Your task to perform on an android device: toggle notifications settings in the gmail app Image 0: 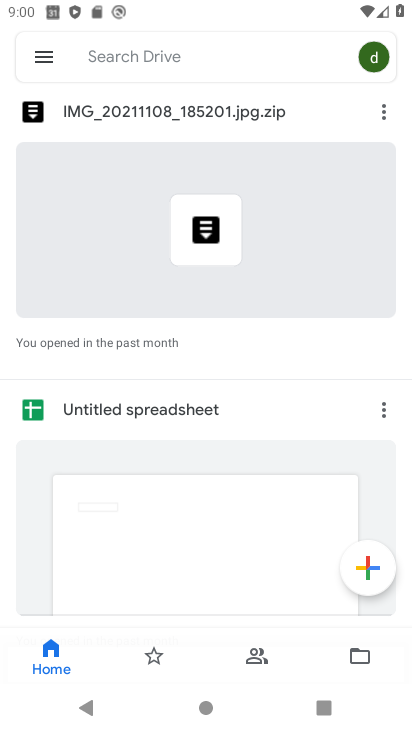
Step 0: press home button
Your task to perform on an android device: toggle notifications settings in the gmail app Image 1: 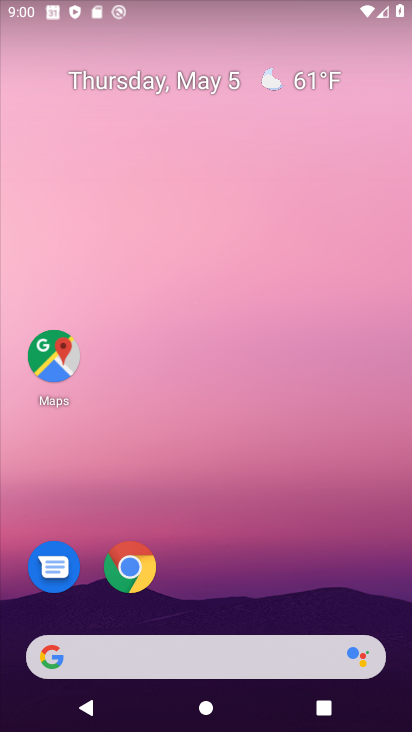
Step 1: drag from (241, 727) to (241, 237)
Your task to perform on an android device: toggle notifications settings in the gmail app Image 2: 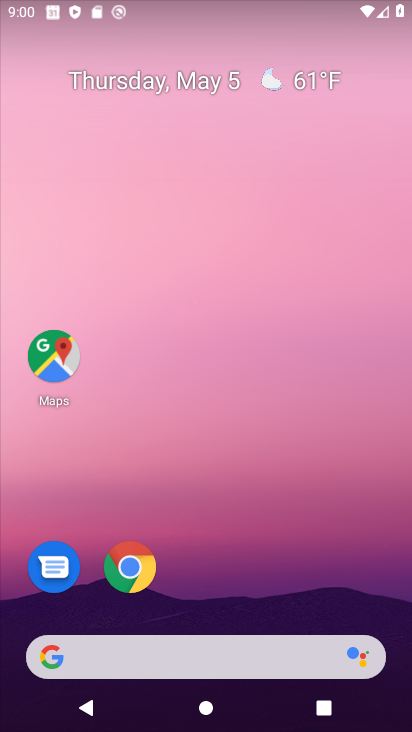
Step 2: drag from (229, 724) to (222, 173)
Your task to perform on an android device: toggle notifications settings in the gmail app Image 3: 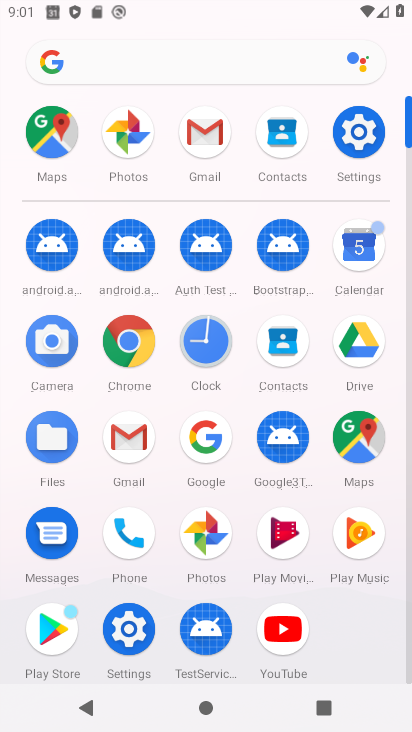
Step 3: click (204, 143)
Your task to perform on an android device: toggle notifications settings in the gmail app Image 4: 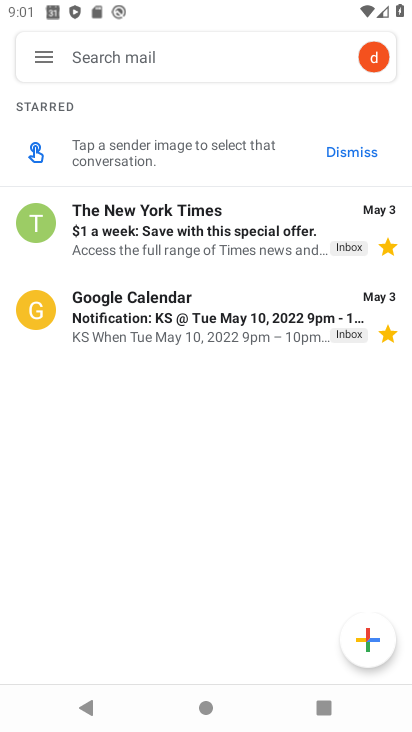
Step 4: click (39, 55)
Your task to perform on an android device: toggle notifications settings in the gmail app Image 5: 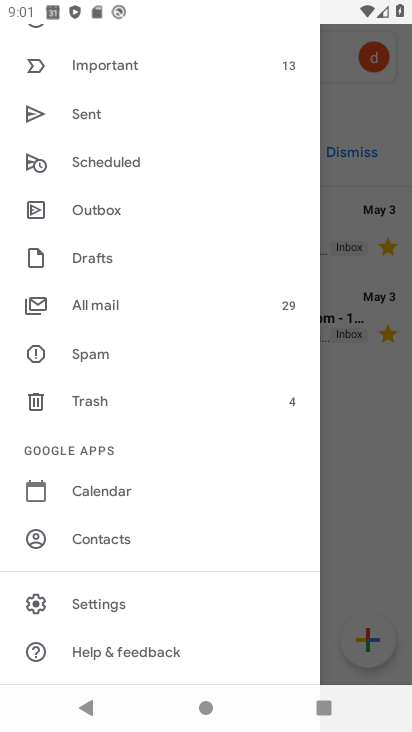
Step 5: click (111, 602)
Your task to perform on an android device: toggle notifications settings in the gmail app Image 6: 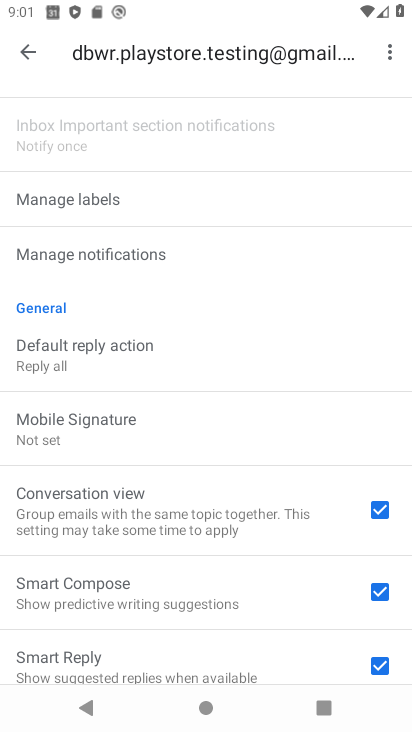
Step 6: drag from (234, 168) to (243, 530)
Your task to perform on an android device: toggle notifications settings in the gmail app Image 7: 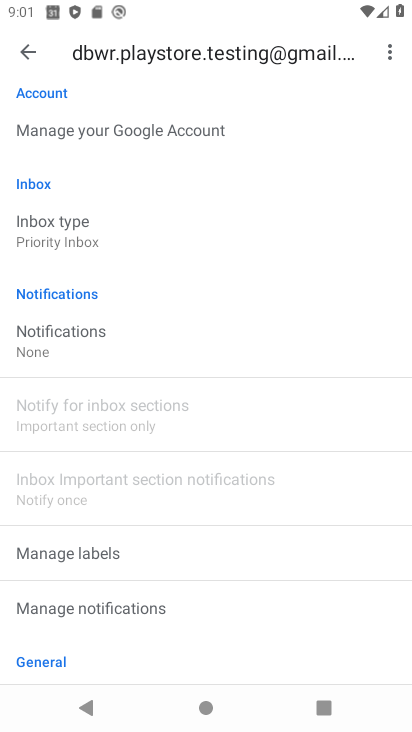
Step 7: drag from (232, 219) to (228, 356)
Your task to perform on an android device: toggle notifications settings in the gmail app Image 8: 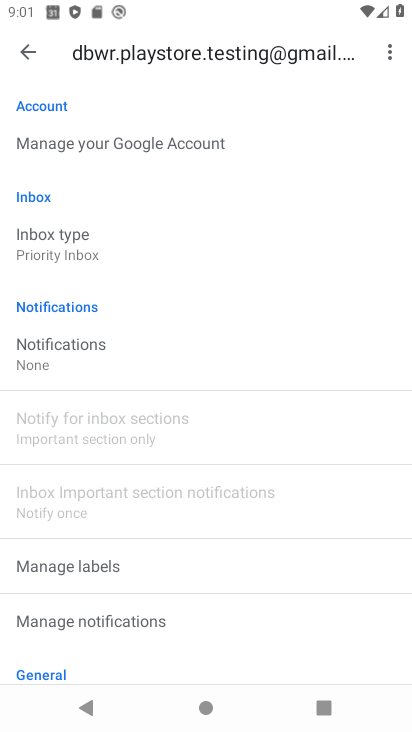
Step 8: click (55, 343)
Your task to perform on an android device: toggle notifications settings in the gmail app Image 9: 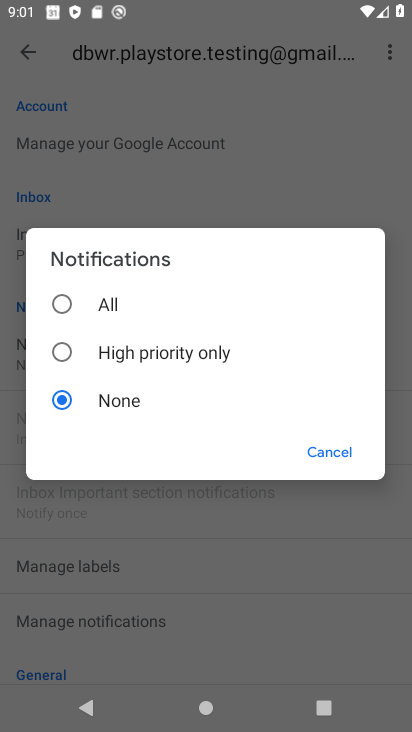
Step 9: click (54, 290)
Your task to perform on an android device: toggle notifications settings in the gmail app Image 10: 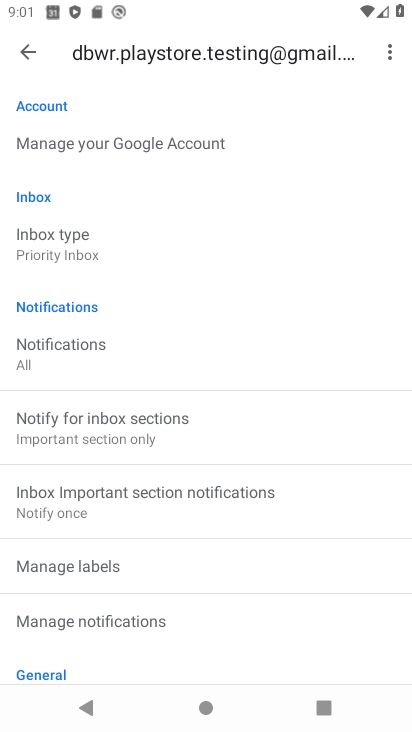
Step 10: task complete